Your task to perform on an android device: Check the news Image 0: 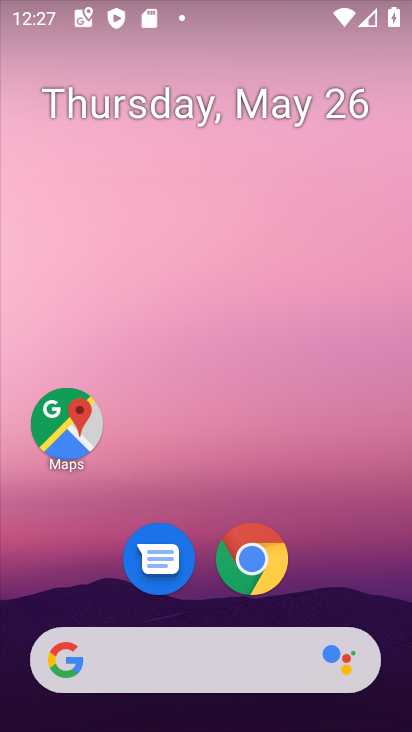
Step 0: drag from (25, 314) to (410, 421)
Your task to perform on an android device: Check the news Image 1: 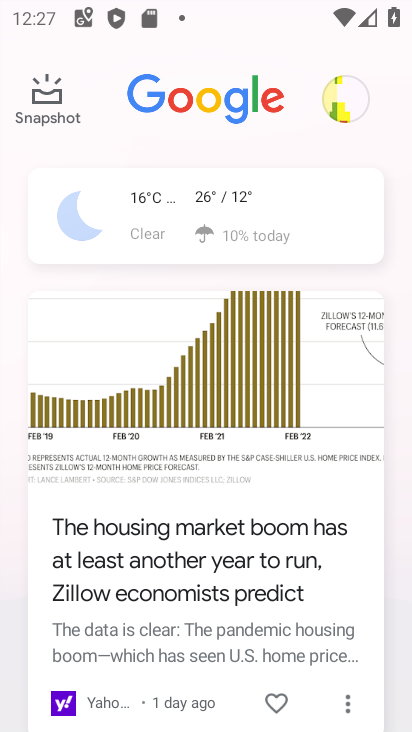
Step 1: task complete